Your task to perform on an android device: Show me the alarms in the clock app Image 0: 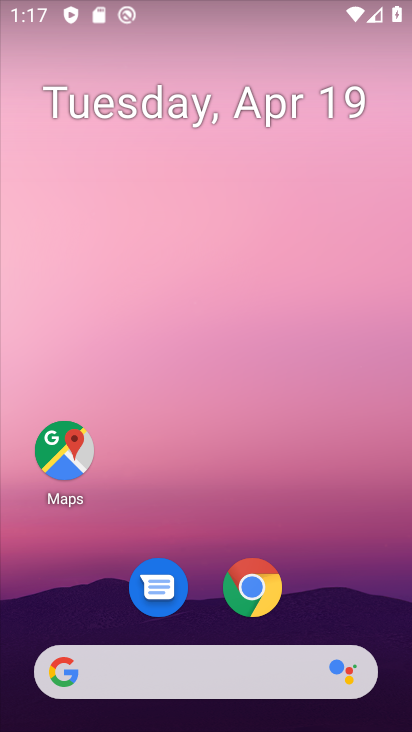
Step 0: drag from (213, 559) to (214, 85)
Your task to perform on an android device: Show me the alarms in the clock app Image 1: 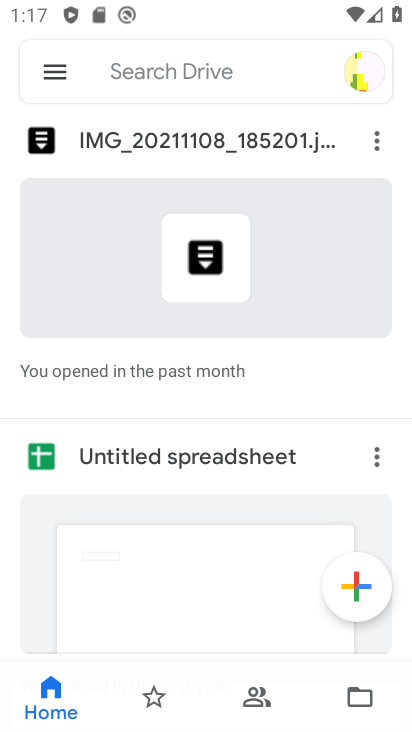
Step 1: press home button
Your task to perform on an android device: Show me the alarms in the clock app Image 2: 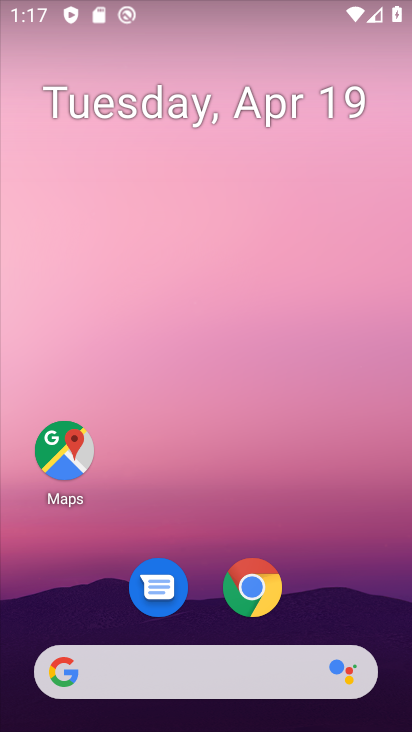
Step 2: drag from (208, 601) to (205, 107)
Your task to perform on an android device: Show me the alarms in the clock app Image 3: 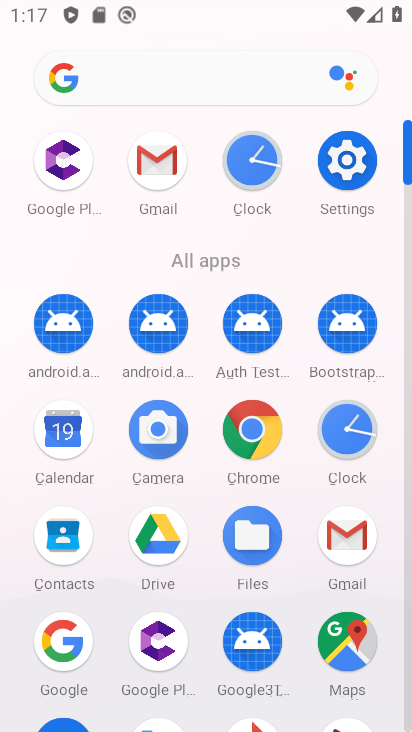
Step 3: click (345, 421)
Your task to perform on an android device: Show me the alarms in the clock app Image 4: 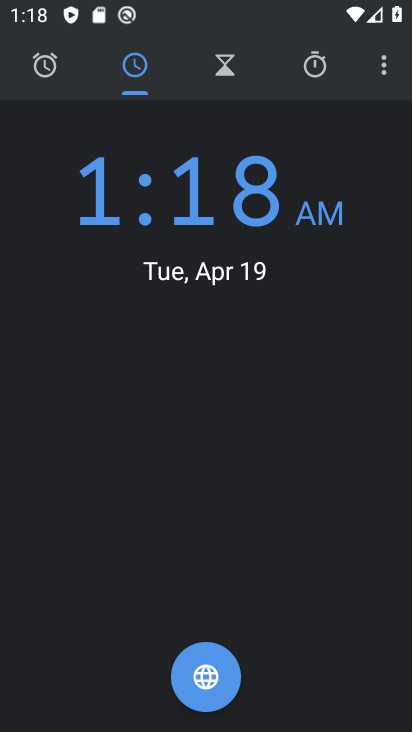
Step 4: click (388, 59)
Your task to perform on an android device: Show me the alarms in the clock app Image 5: 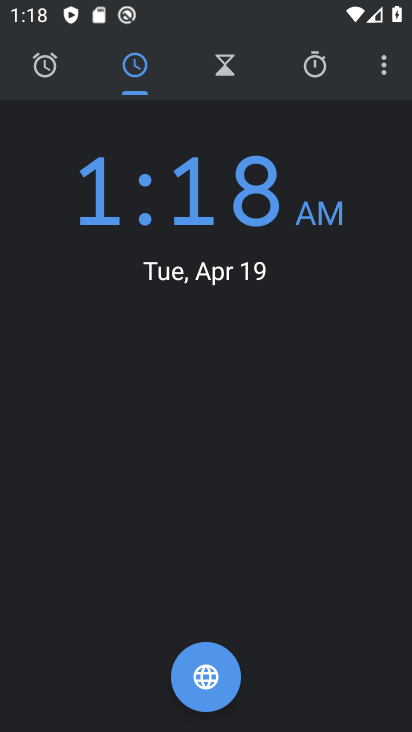
Step 5: click (381, 53)
Your task to perform on an android device: Show me the alarms in the clock app Image 6: 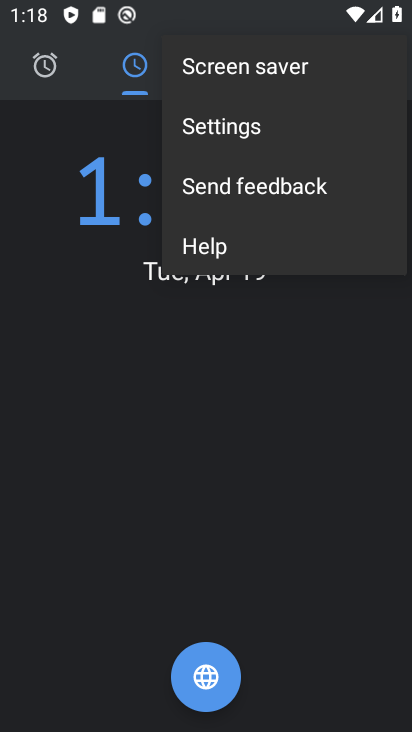
Step 6: click (75, 269)
Your task to perform on an android device: Show me the alarms in the clock app Image 7: 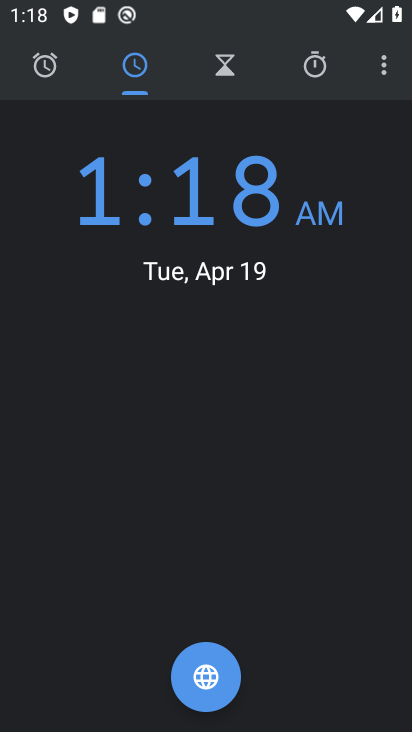
Step 7: click (48, 59)
Your task to perform on an android device: Show me the alarms in the clock app Image 8: 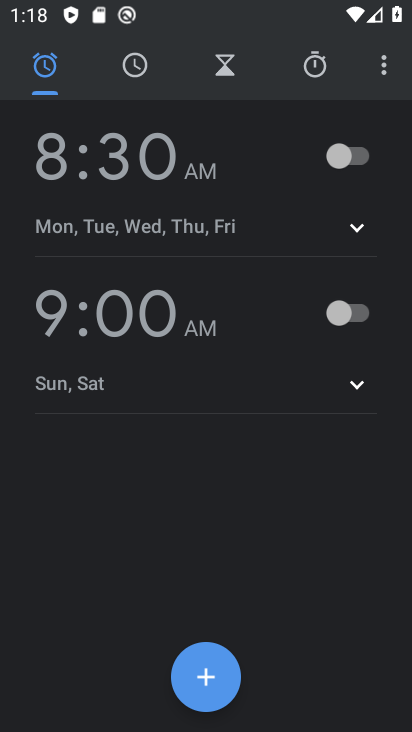
Step 8: task complete